Your task to perform on an android device: Go to Reddit.com Image 0: 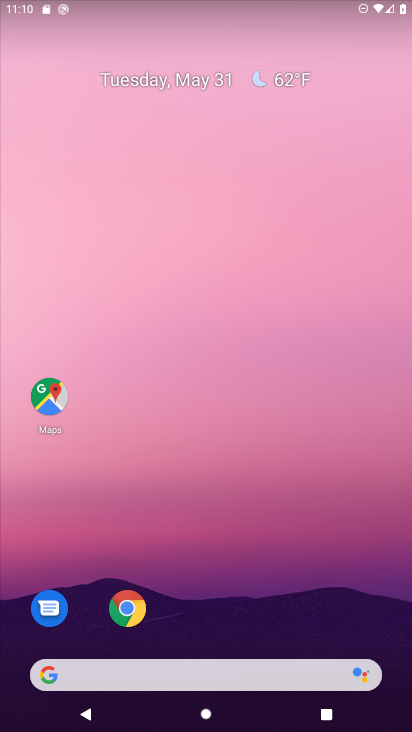
Step 0: drag from (316, 573) to (320, 90)
Your task to perform on an android device: Go to Reddit.com Image 1: 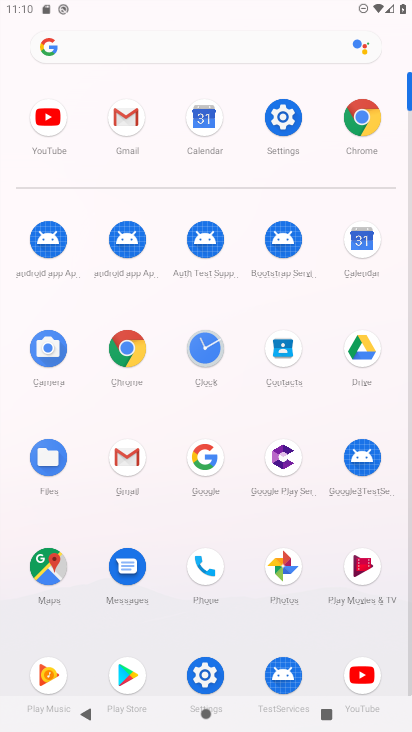
Step 1: click (383, 111)
Your task to perform on an android device: Go to Reddit.com Image 2: 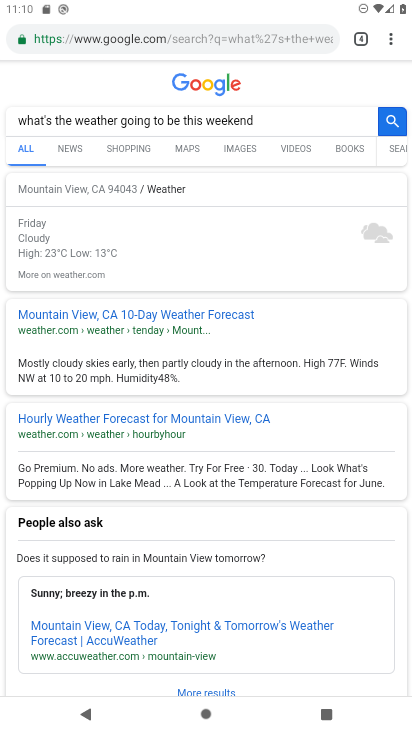
Step 2: click (211, 36)
Your task to perform on an android device: Go to Reddit.com Image 3: 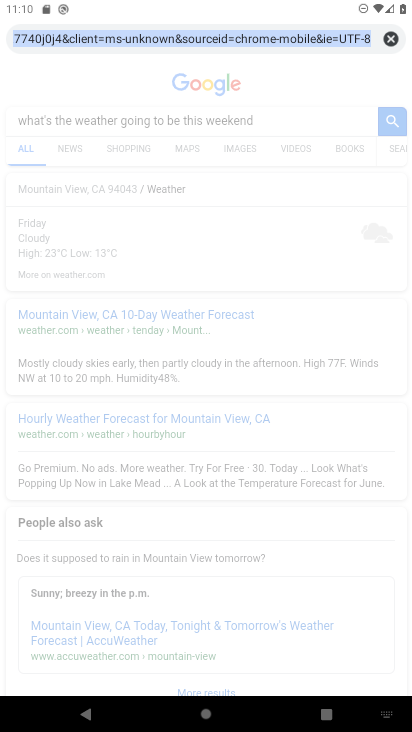
Step 3: click (392, 32)
Your task to perform on an android device: Go to Reddit.com Image 4: 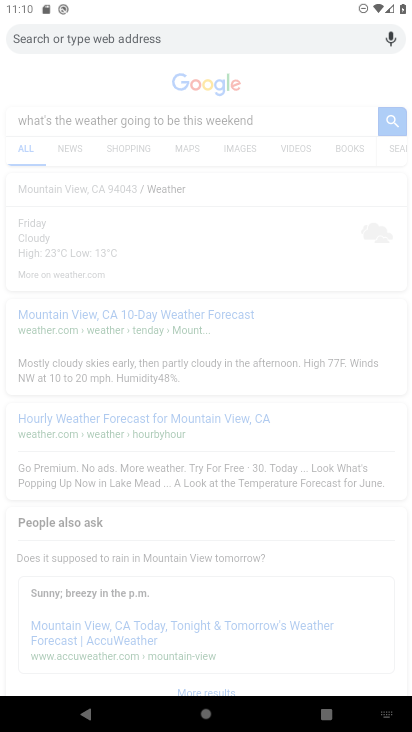
Step 4: type "reddit.com"
Your task to perform on an android device: Go to Reddit.com Image 5: 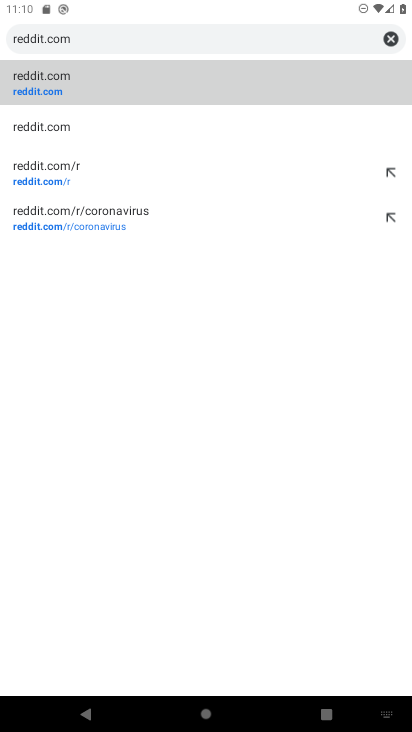
Step 5: click (69, 88)
Your task to perform on an android device: Go to Reddit.com Image 6: 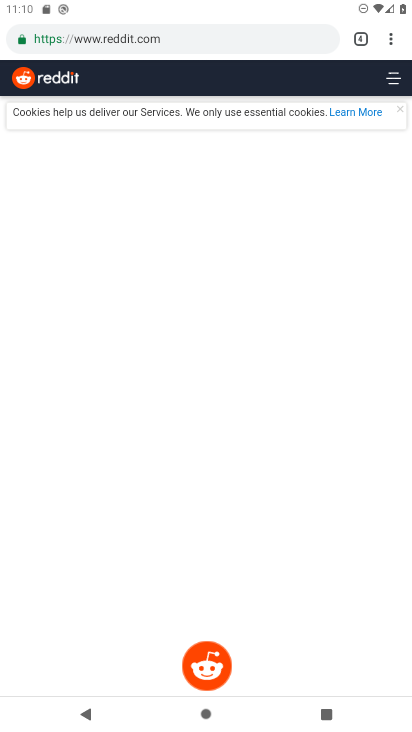
Step 6: task complete